Your task to perform on an android device: toggle pop-ups in chrome Image 0: 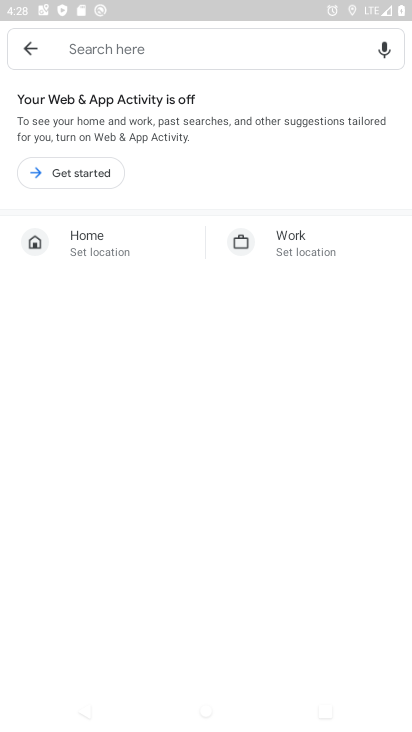
Step 0: press home button
Your task to perform on an android device: toggle pop-ups in chrome Image 1: 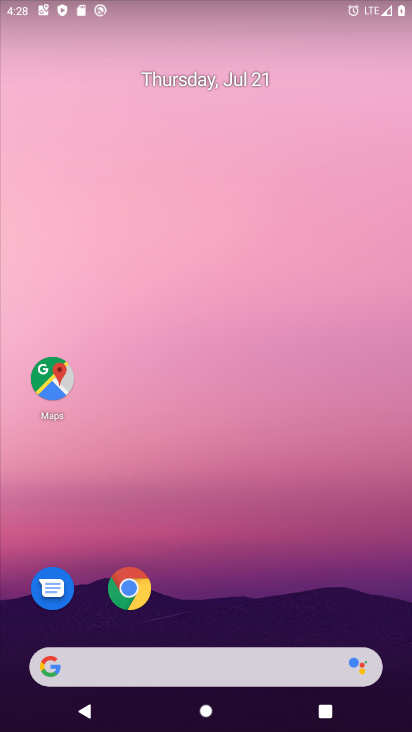
Step 1: drag from (237, 616) to (269, 27)
Your task to perform on an android device: toggle pop-ups in chrome Image 2: 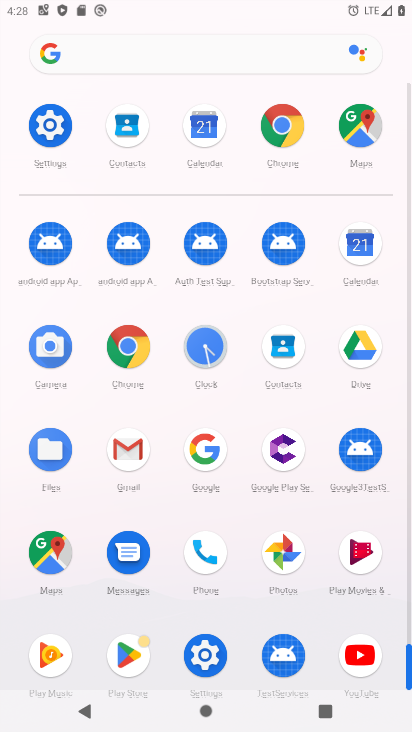
Step 2: click (131, 342)
Your task to perform on an android device: toggle pop-ups in chrome Image 3: 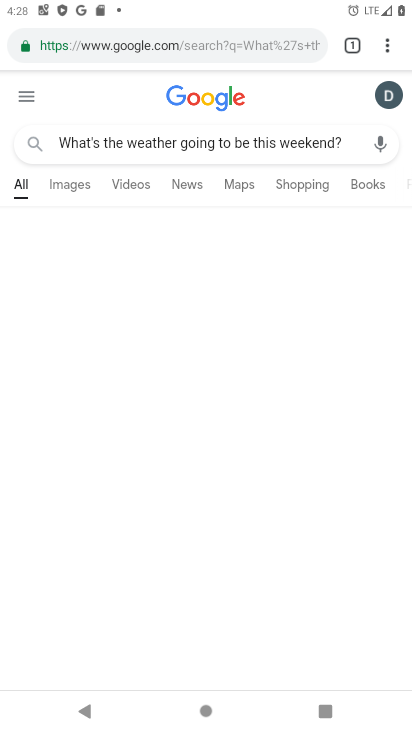
Step 3: drag from (388, 44) to (272, 511)
Your task to perform on an android device: toggle pop-ups in chrome Image 4: 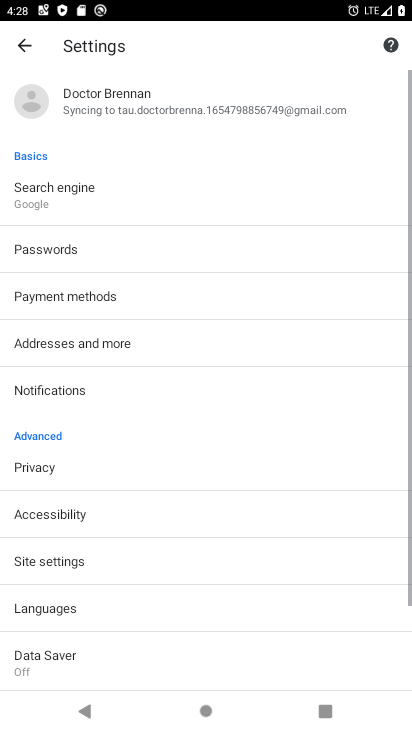
Step 4: drag from (175, 588) to (169, 326)
Your task to perform on an android device: toggle pop-ups in chrome Image 5: 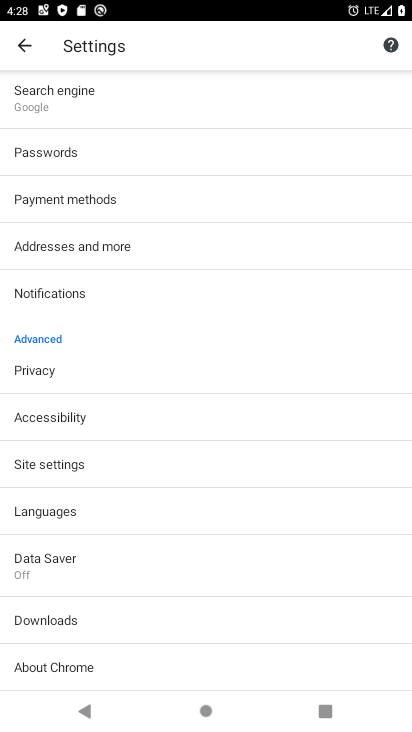
Step 5: click (82, 456)
Your task to perform on an android device: toggle pop-ups in chrome Image 6: 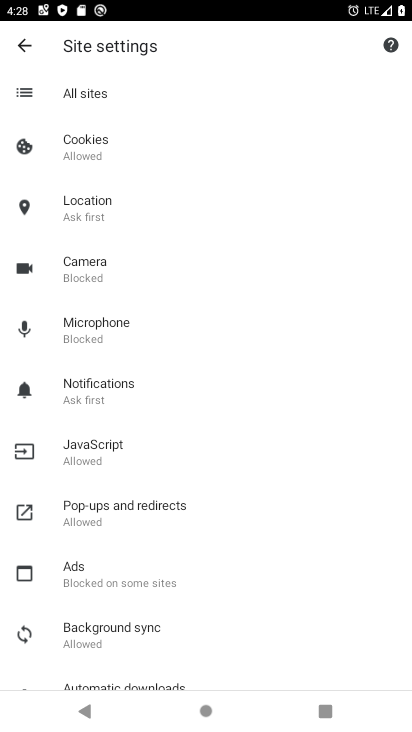
Step 6: click (118, 497)
Your task to perform on an android device: toggle pop-ups in chrome Image 7: 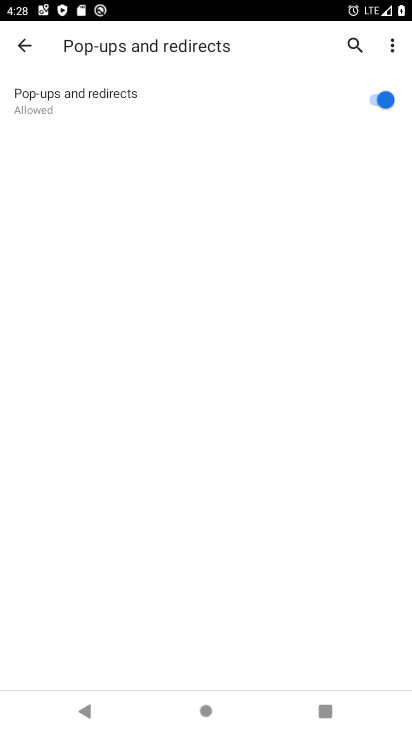
Step 7: click (306, 79)
Your task to perform on an android device: toggle pop-ups in chrome Image 8: 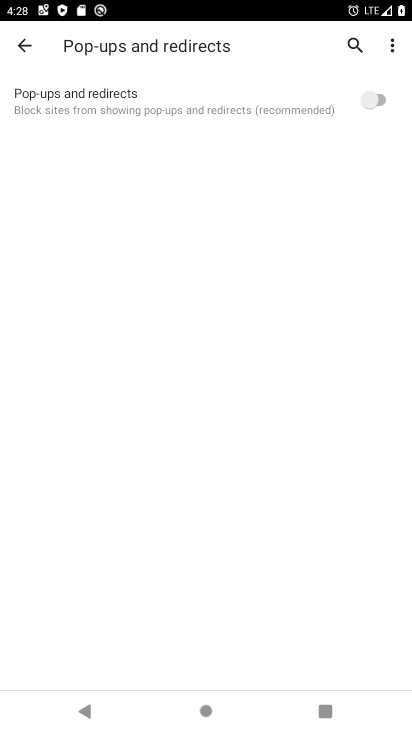
Step 8: task complete